Your task to perform on an android device: turn off priority inbox in the gmail app Image 0: 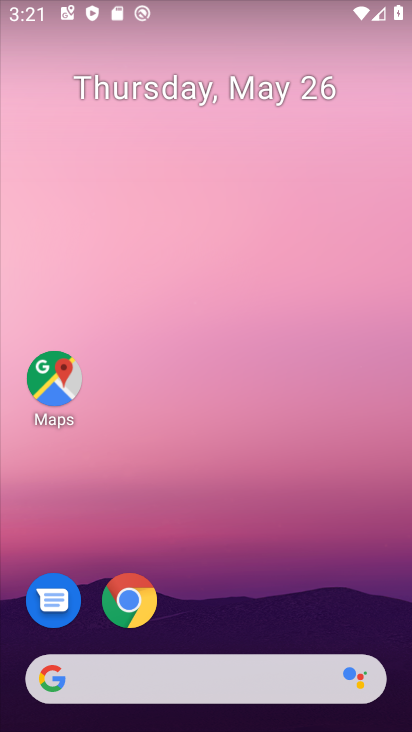
Step 0: drag from (227, 591) to (169, 33)
Your task to perform on an android device: turn off priority inbox in the gmail app Image 1: 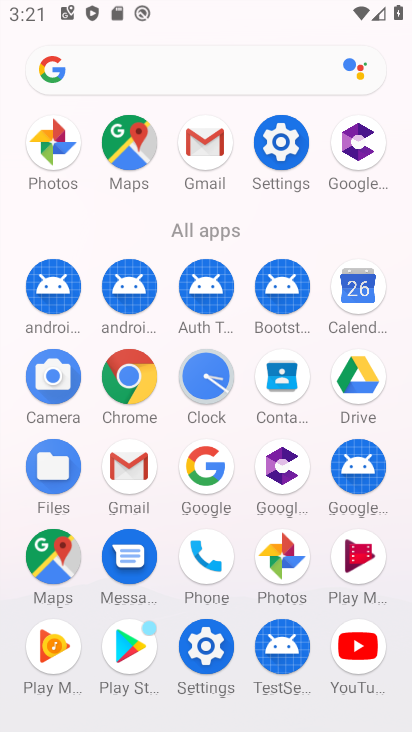
Step 1: drag from (4, 621) to (17, 298)
Your task to perform on an android device: turn off priority inbox in the gmail app Image 2: 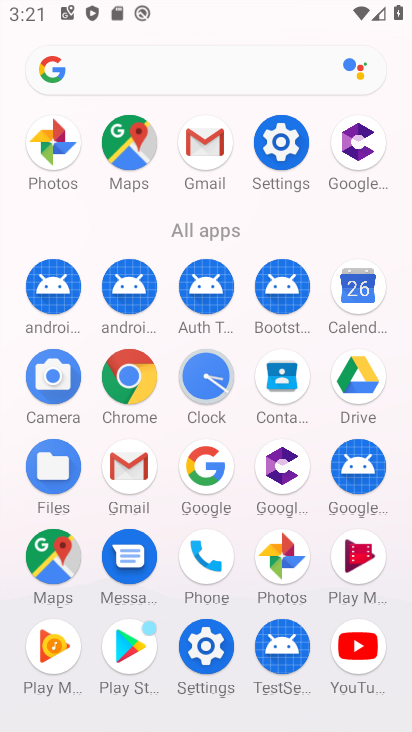
Step 2: click (130, 460)
Your task to perform on an android device: turn off priority inbox in the gmail app Image 3: 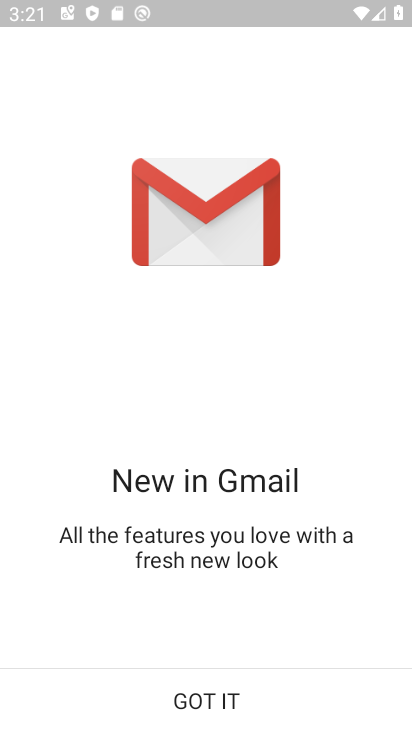
Step 3: click (204, 691)
Your task to perform on an android device: turn off priority inbox in the gmail app Image 4: 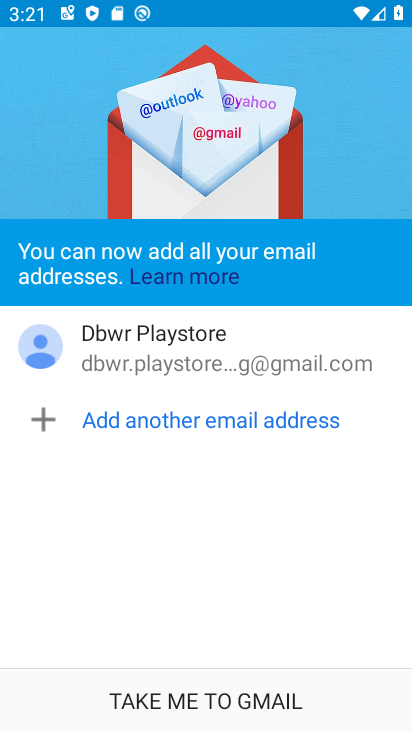
Step 4: click (265, 694)
Your task to perform on an android device: turn off priority inbox in the gmail app Image 5: 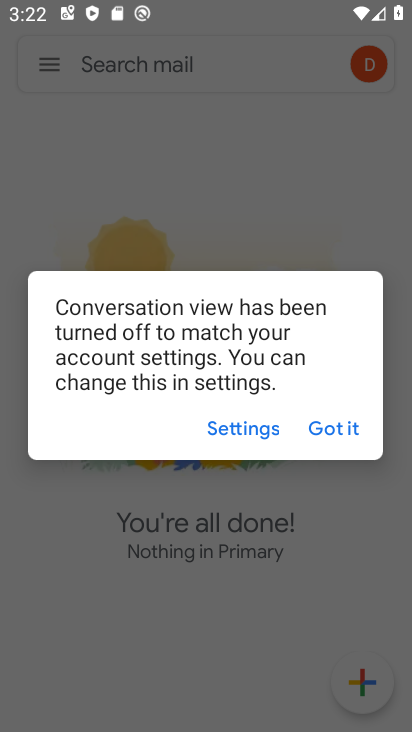
Step 5: click (334, 430)
Your task to perform on an android device: turn off priority inbox in the gmail app Image 6: 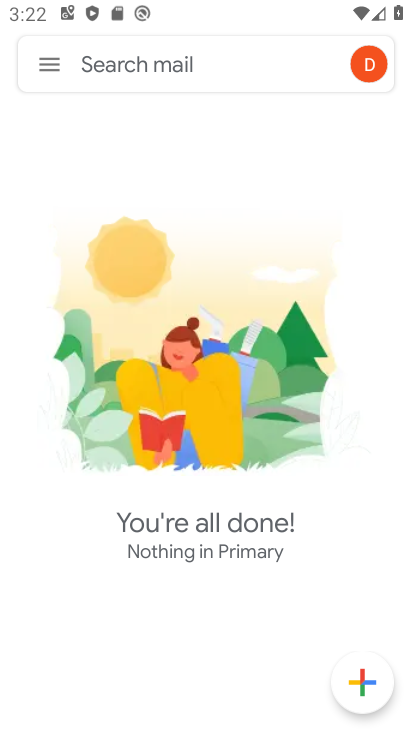
Step 6: click (47, 57)
Your task to perform on an android device: turn off priority inbox in the gmail app Image 7: 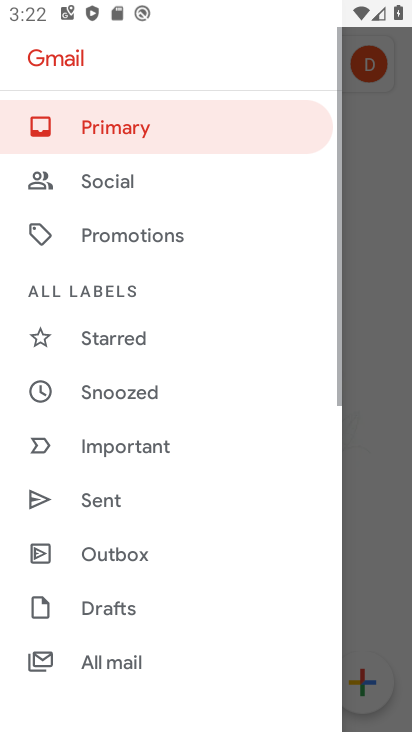
Step 7: drag from (200, 594) to (228, 127)
Your task to perform on an android device: turn off priority inbox in the gmail app Image 8: 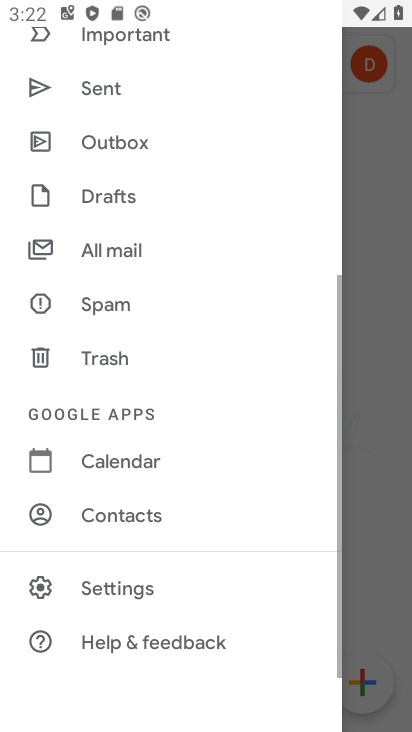
Step 8: click (122, 590)
Your task to perform on an android device: turn off priority inbox in the gmail app Image 9: 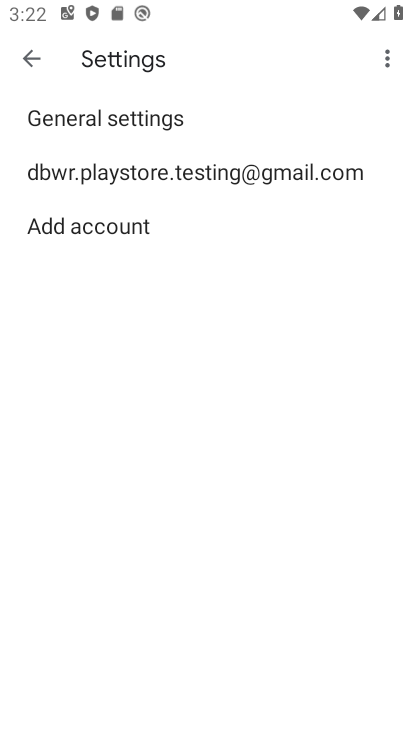
Step 9: click (264, 175)
Your task to perform on an android device: turn off priority inbox in the gmail app Image 10: 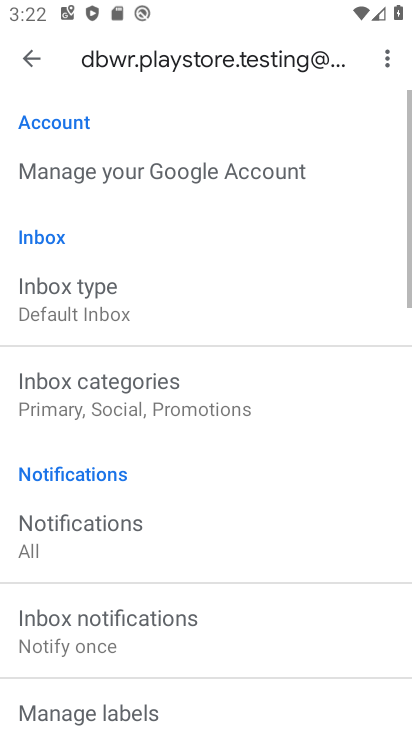
Step 10: drag from (260, 550) to (260, 176)
Your task to perform on an android device: turn off priority inbox in the gmail app Image 11: 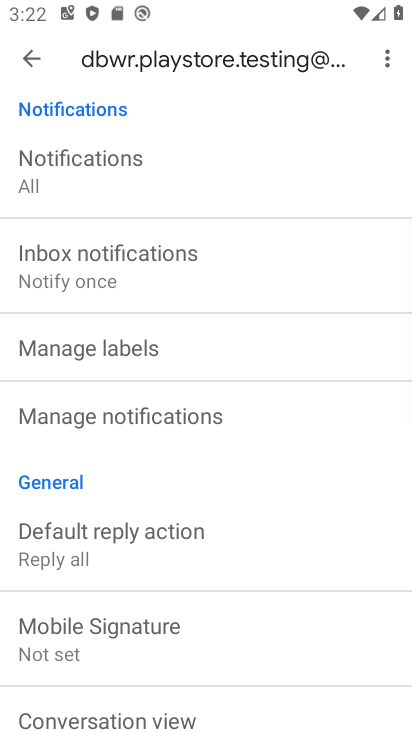
Step 11: drag from (215, 588) to (272, 107)
Your task to perform on an android device: turn off priority inbox in the gmail app Image 12: 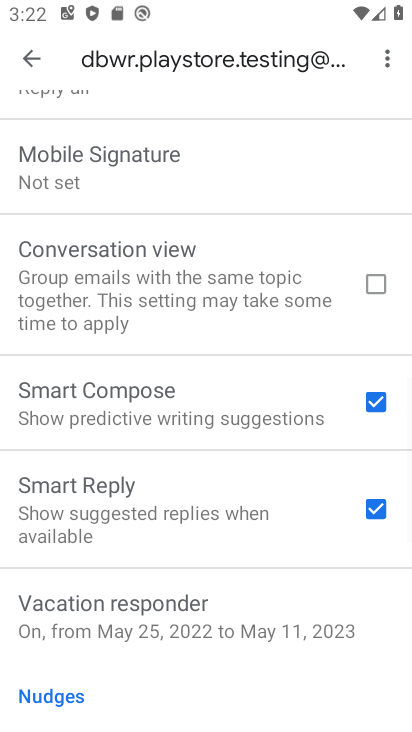
Step 12: drag from (265, 612) to (272, 139)
Your task to perform on an android device: turn off priority inbox in the gmail app Image 13: 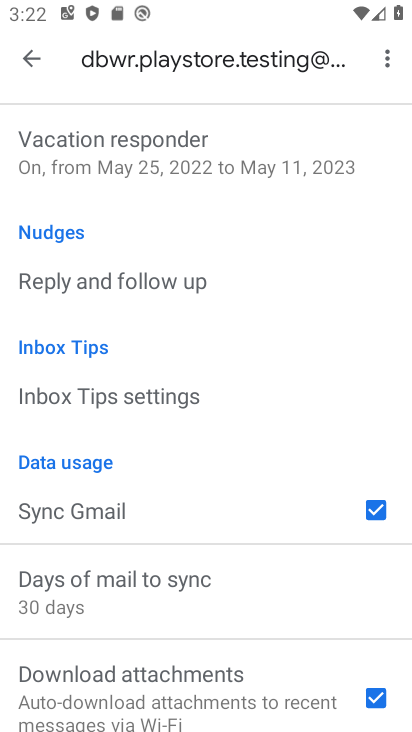
Step 13: drag from (209, 631) to (230, 161)
Your task to perform on an android device: turn off priority inbox in the gmail app Image 14: 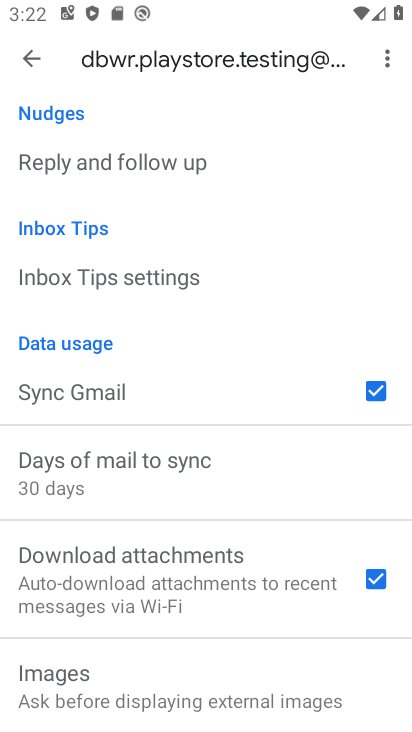
Step 14: drag from (269, 247) to (218, 661)
Your task to perform on an android device: turn off priority inbox in the gmail app Image 15: 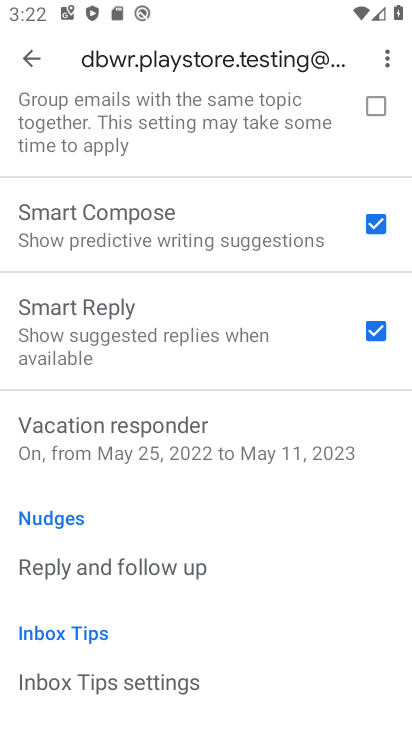
Step 15: drag from (204, 214) to (189, 707)
Your task to perform on an android device: turn off priority inbox in the gmail app Image 16: 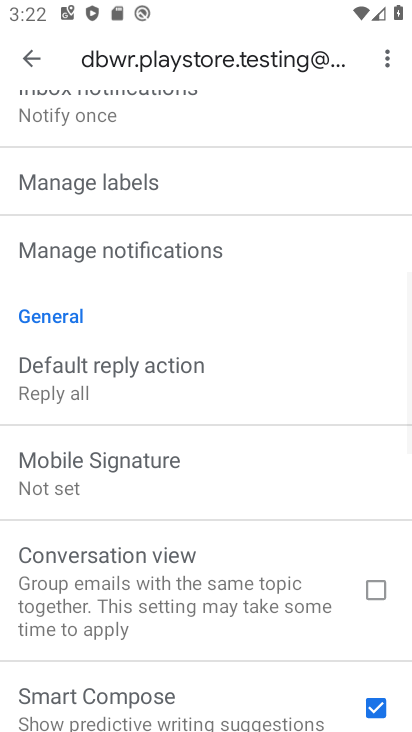
Step 16: drag from (241, 273) to (239, 681)
Your task to perform on an android device: turn off priority inbox in the gmail app Image 17: 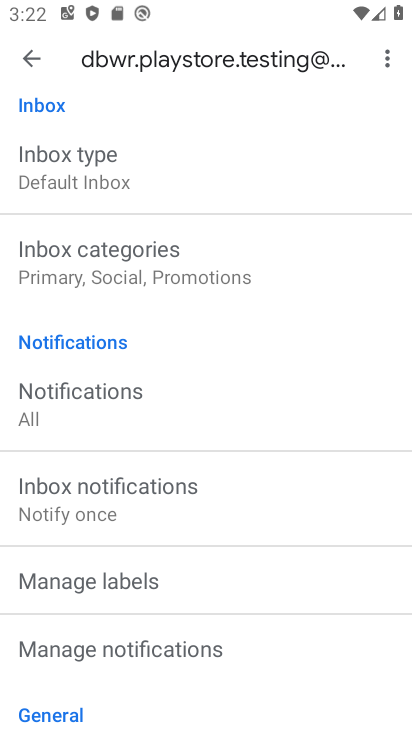
Step 17: click (146, 640)
Your task to perform on an android device: turn off priority inbox in the gmail app Image 18: 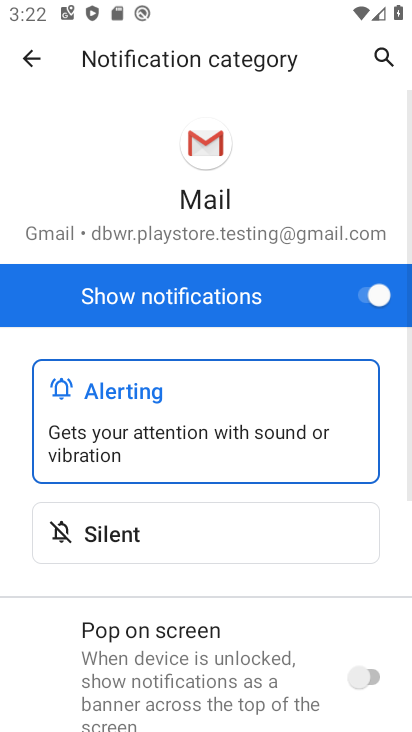
Step 18: drag from (231, 664) to (271, 173)
Your task to perform on an android device: turn off priority inbox in the gmail app Image 19: 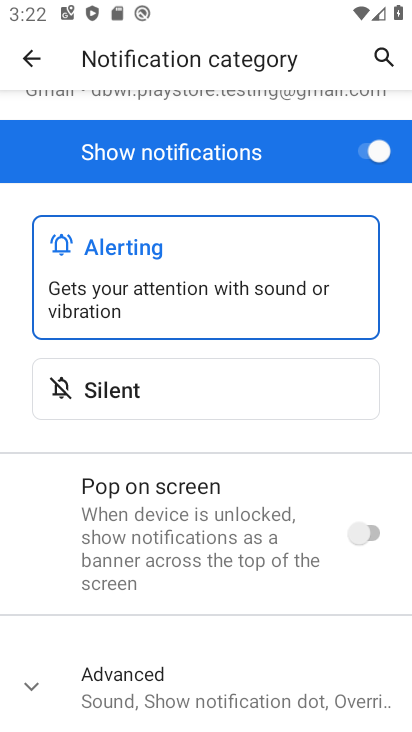
Step 19: drag from (221, 596) to (257, 188)
Your task to perform on an android device: turn off priority inbox in the gmail app Image 20: 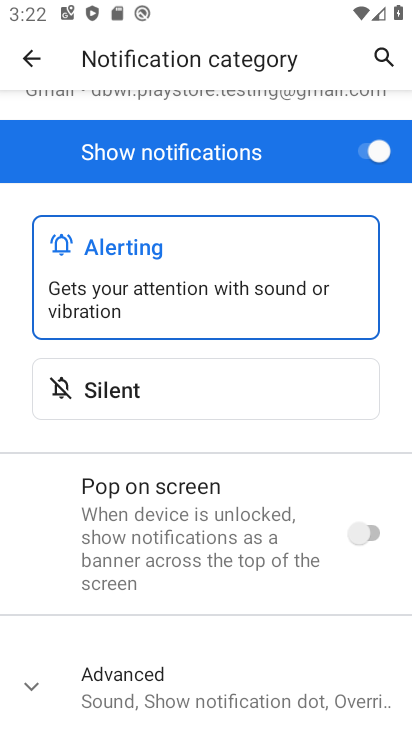
Step 20: click (46, 677)
Your task to perform on an android device: turn off priority inbox in the gmail app Image 21: 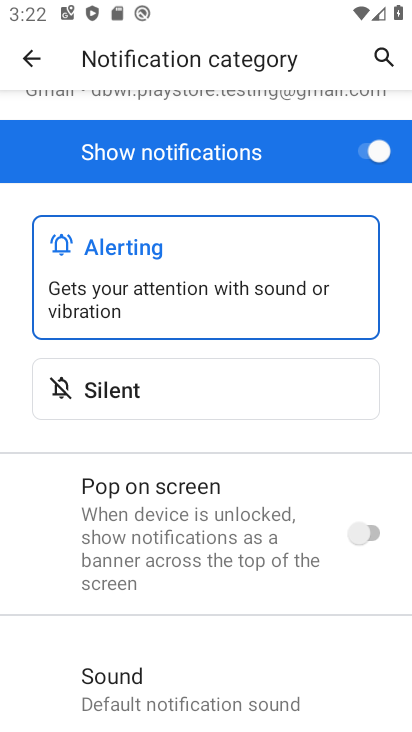
Step 21: drag from (248, 222) to (234, 618)
Your task to perform on an android device: turn off priority inbox in the gmail app Image 22: 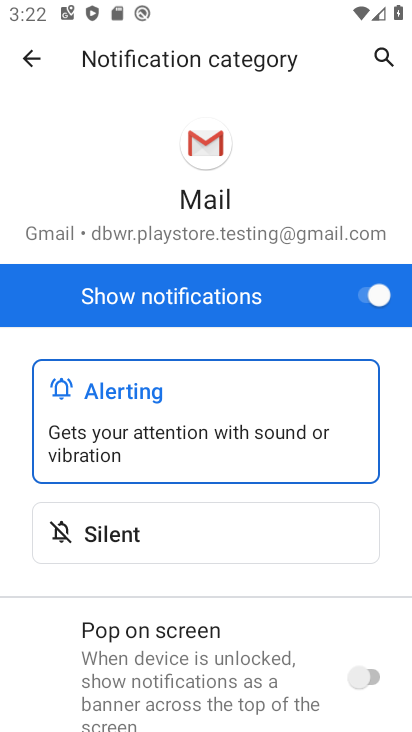
Step 22: click (10, 46)
Your task to perform on an android device: turn off priority inbox in the gmail app Image 23: 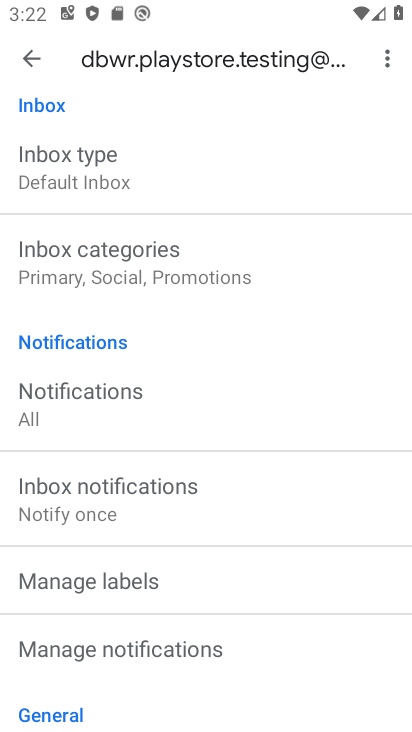
Step 23: click (138, 170)
Your task to perform on an android device: turn off priority inbox in the gmail app Image 24: 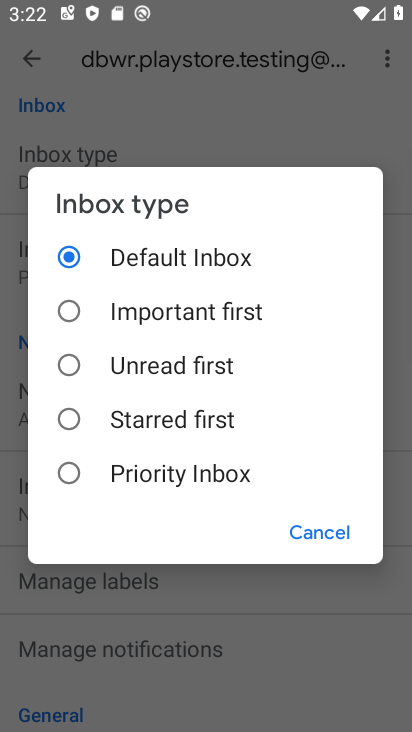
Step 24: click (169, 259)
Your task to perform on an android device: turn off priority inbox in the gmail app Image 25: 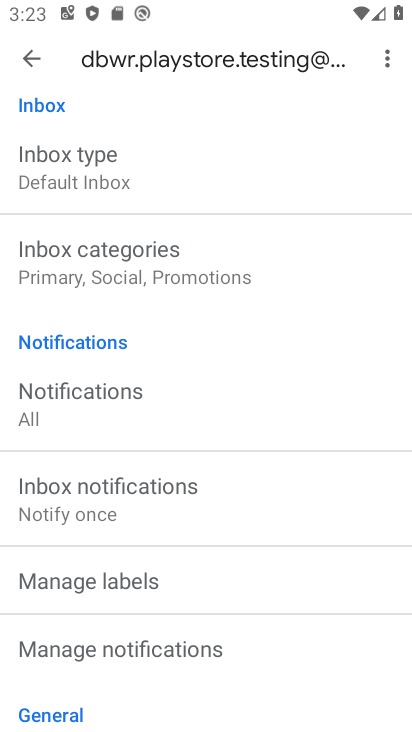
Step 25: task complete